Your task to perform on an android device: visit the assistant section in the google photos Image 0: 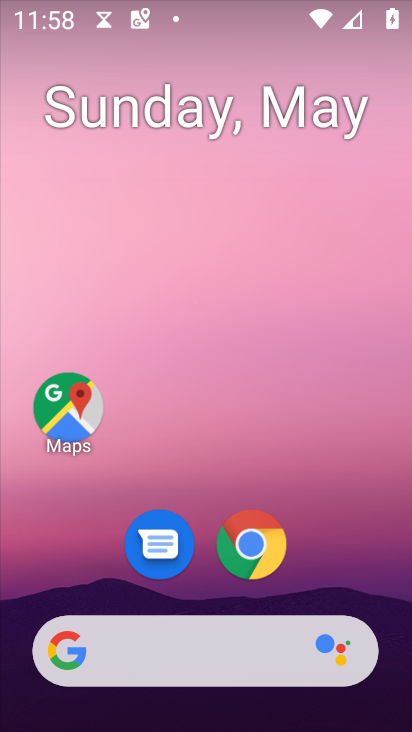
Step 0: drag from (334, 559) to (350, 307)
Your task to perform on an android device: visit the assistant section in the google photos Image 1: 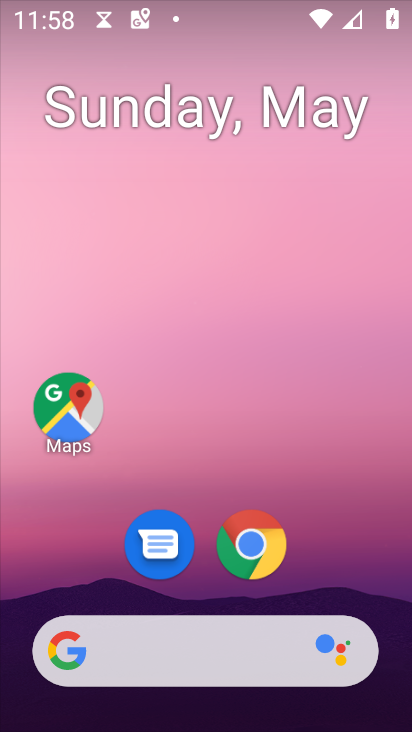
Step 1: drag from (296, 538) to (301, 226)
Your task to perform on an android device: visit the assistant section in the google photos Image 2: 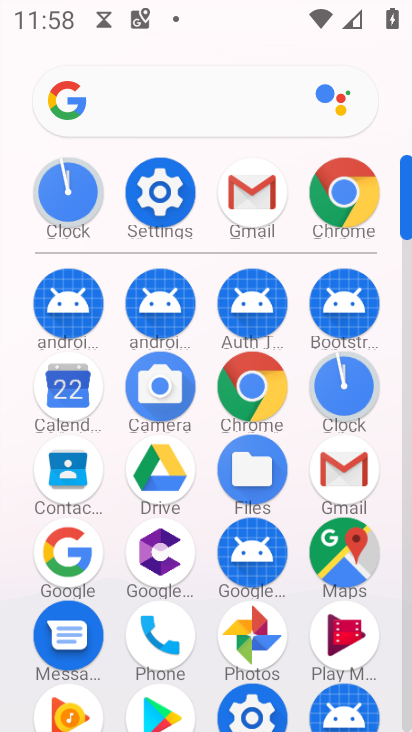
Step 2: drag from (200, 605) to (208, 336)
Your task to perform on an android device: visit the assistant section in the google photos Image 3: 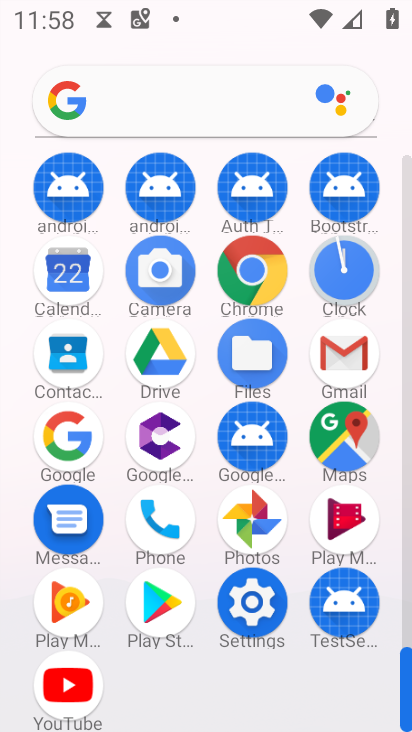
Step 3: click (247, 519)
Your task to perform on an android device: visit the assistant section in the google photos Image 4: 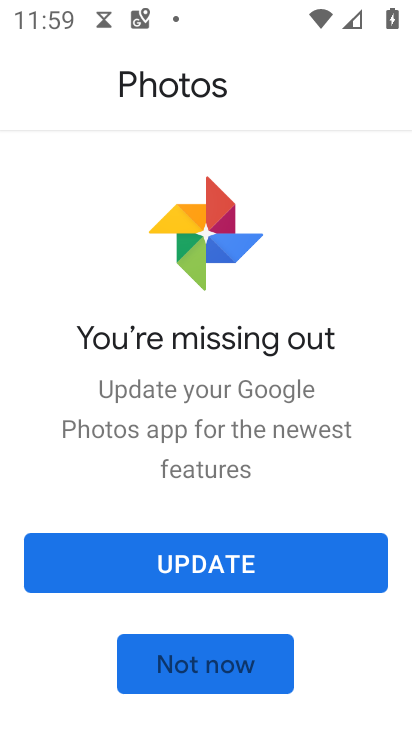
Step 4: click (236, 662)
Your task to perform on an android device: visit the assistant section in the google photos Image 5: 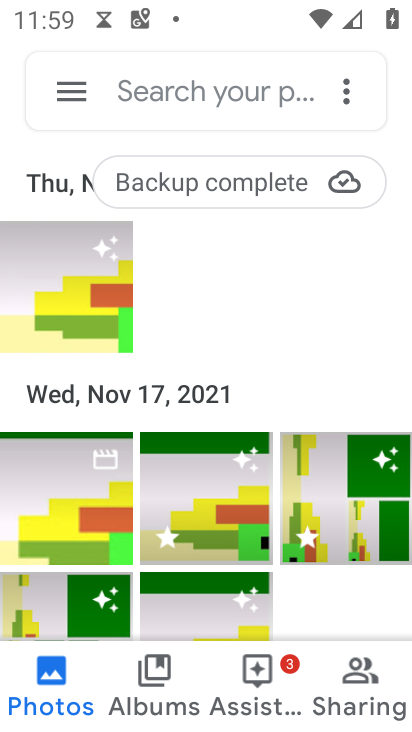
Step 5: click (235, 683)
Your task to perform on an android device: visit the assistant section in the google photos Image 6: 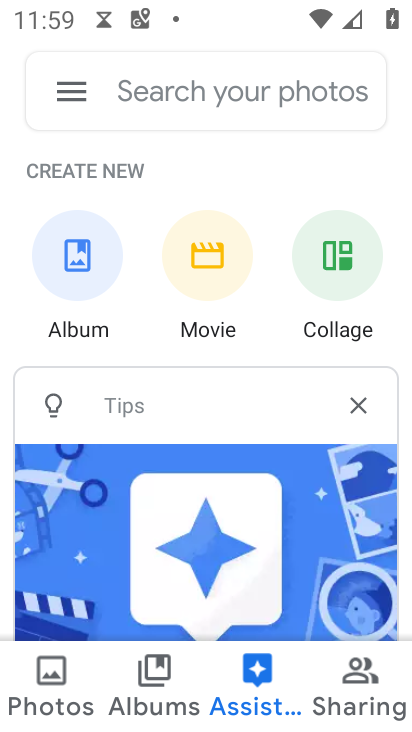
Step 6: task complete